Your task to perform on an android device: Go to Reddit.com Image 0: 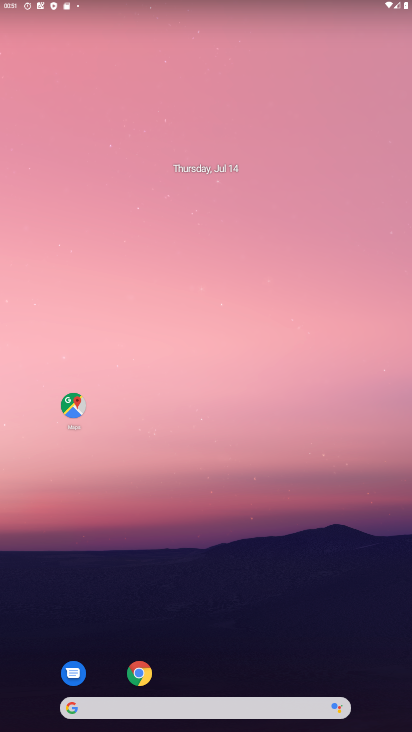
Step 0: click (137, 679)
Your task to perform on an android device: Go to Reddit.com Image 1: 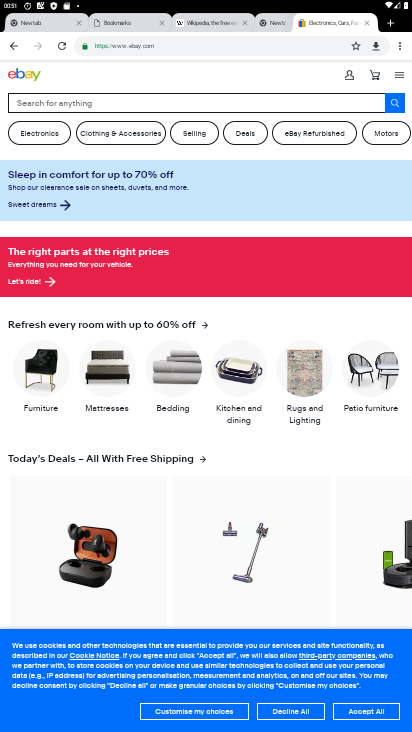
Step 1: click (391, 22)
Your task to perform on an android device: Go to Reddit.com Image 2: 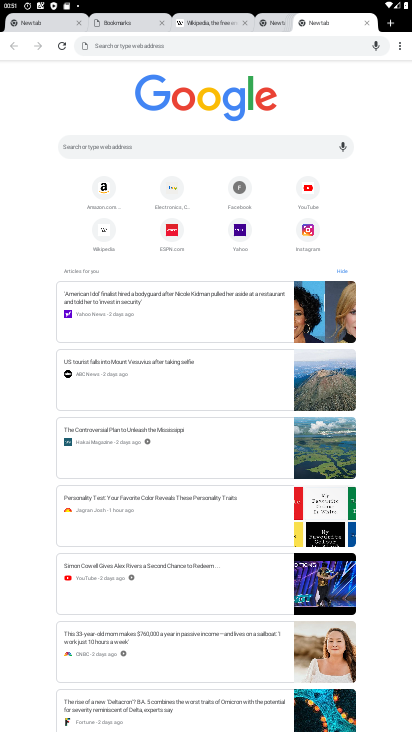
Step 2: click (147, 143)
Your task to perform on an android device: Go to Reddit.com Image 3: 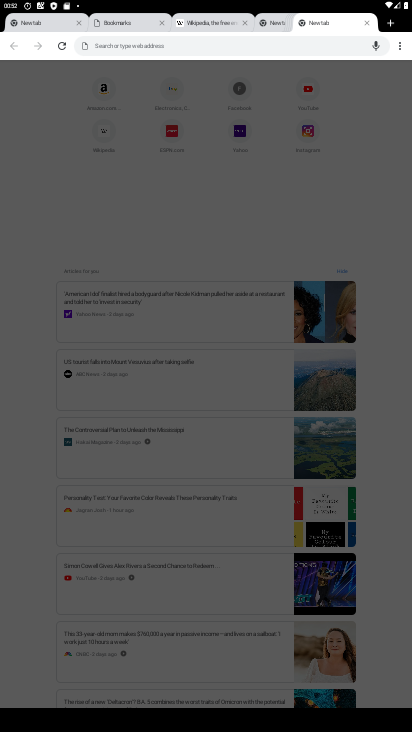
Step 3: type "Reddit.com"
Your task to perform on an android device: Go to Reddit.com Image 4: 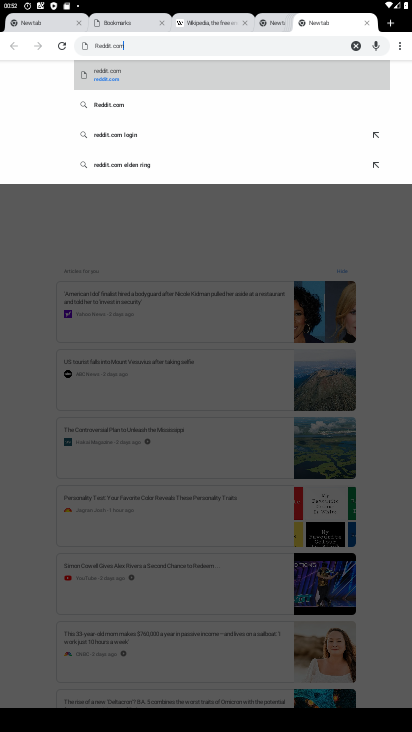
Step 4: click (114, 79)
Your task to perform on an android device: Go to Reddit.com Image 5: 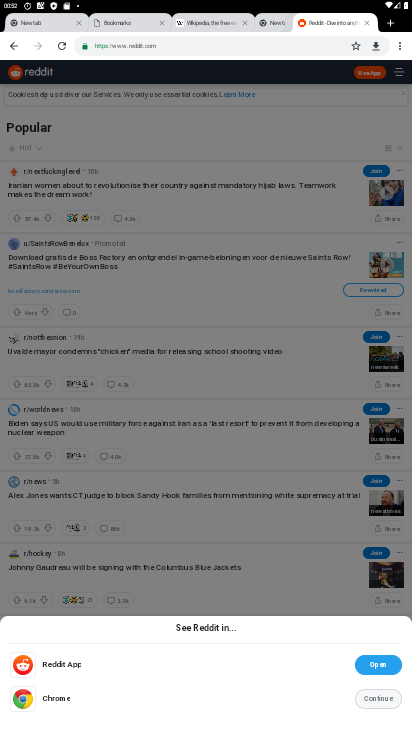
Step 5: task complete